Your task to perform on an android device: Open ESPN.com Image 0: 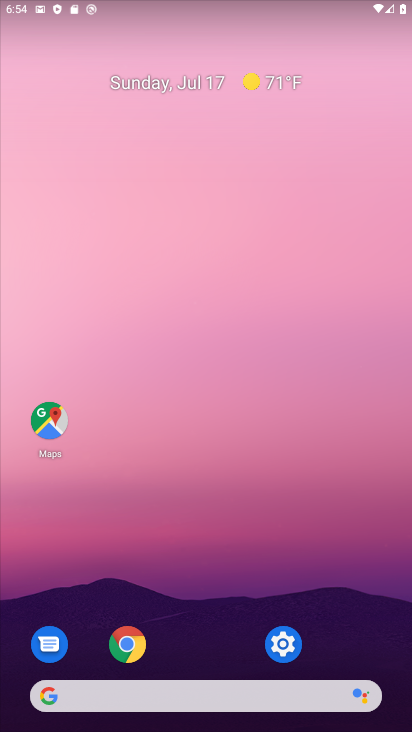
Step 0: click (132, 651)
Your task to perform on an android device: Open ESPN.com Image 1: 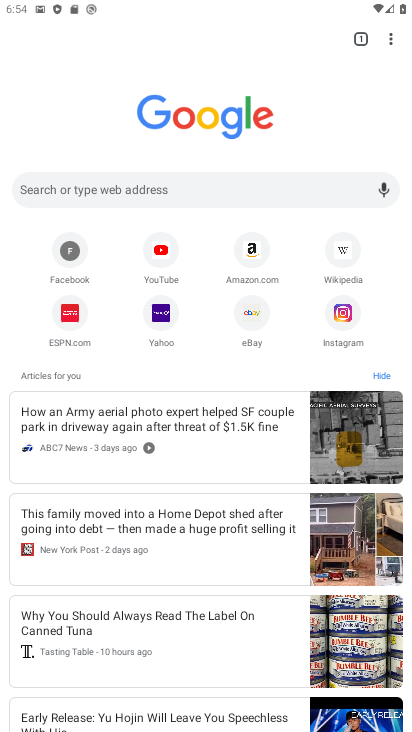
Step 1: click (75, 327)
Your task to perform on an android device: Open ESPN.com Image 2: 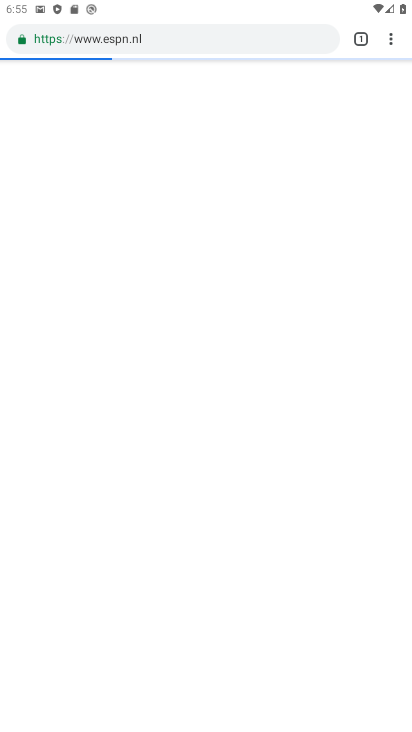
Step 2: task complete